Your task to perform on an android device: Go to battery settings Image 0: 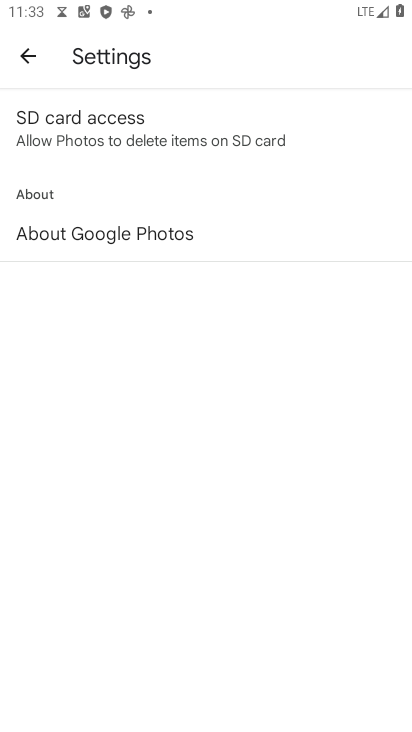
Step 0: press back button
Your task to perform on an android device: Go to battery settings Image 1: 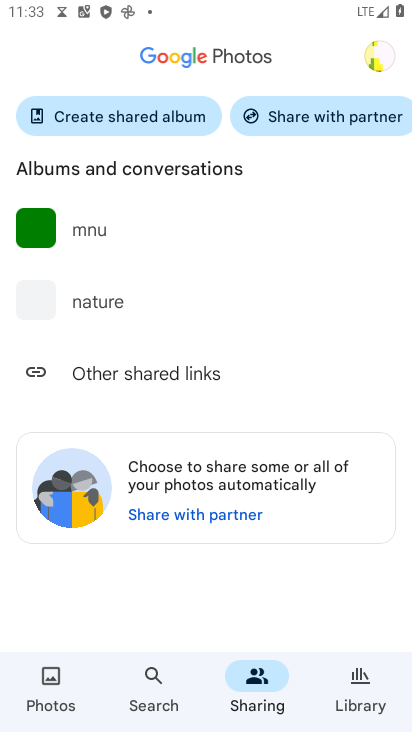
Step 1: press back button
Your task to perform on an android device: Go to battery settings Image 2: 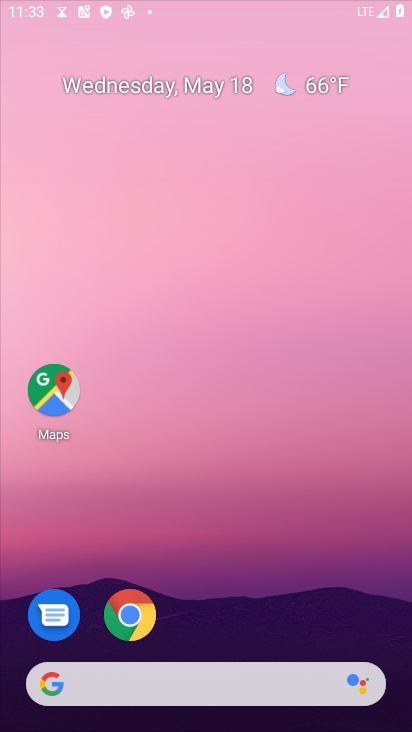
Step 2: press home button
Your task to perform on an android device: Go to battery settings Image 3: 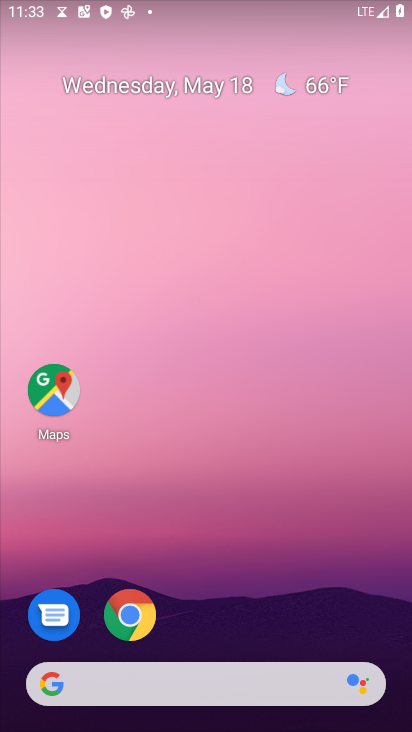
Step 3: drag from (246, 468) to (238, 5)
Your task to perform on an android device: Go to battery settings Image 4: 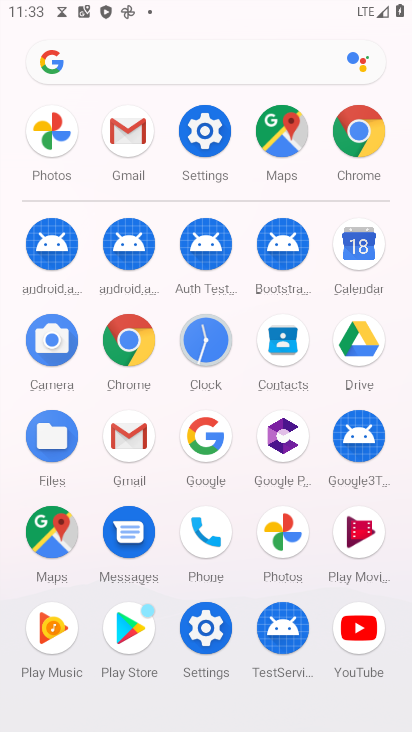
Step 4: click (205, 627)
Your task to perform on an android device: Go to battery settings Image 5: 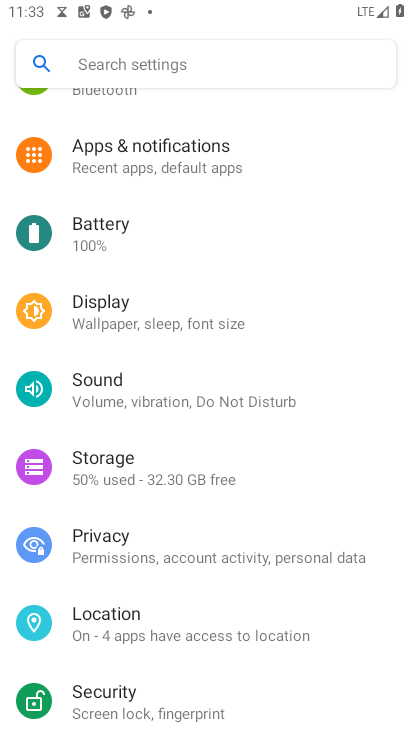
Step 5: click (126, 225)
Your task to perform on an android device: Go to battery settings Image 6: 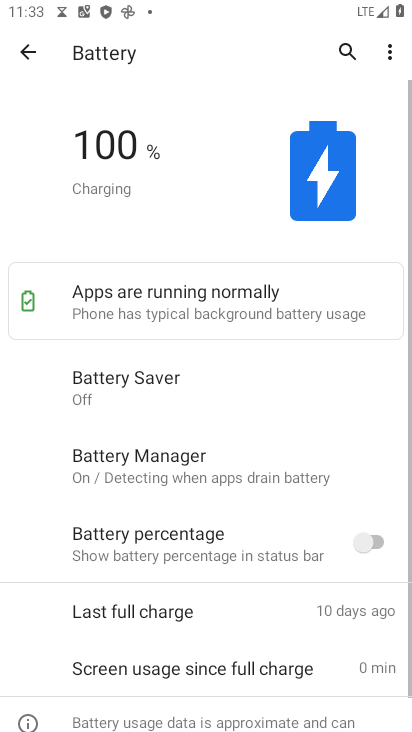
Step 6: task complete